Your task to perform on an android device: Open location settings Image 0: 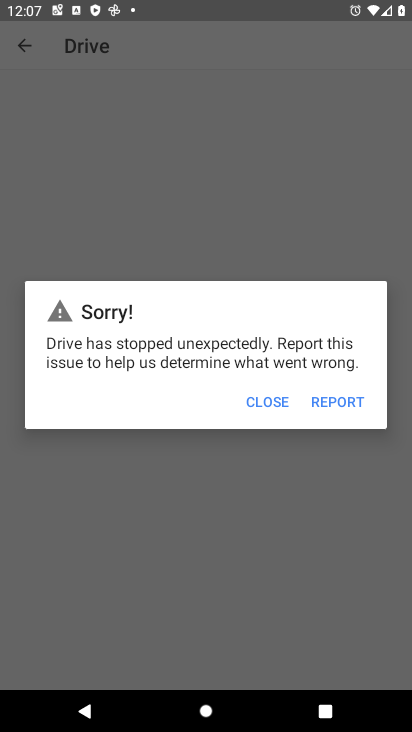
Step 0: press home button
Your task to perform on an android device: Open location settings Image 1: 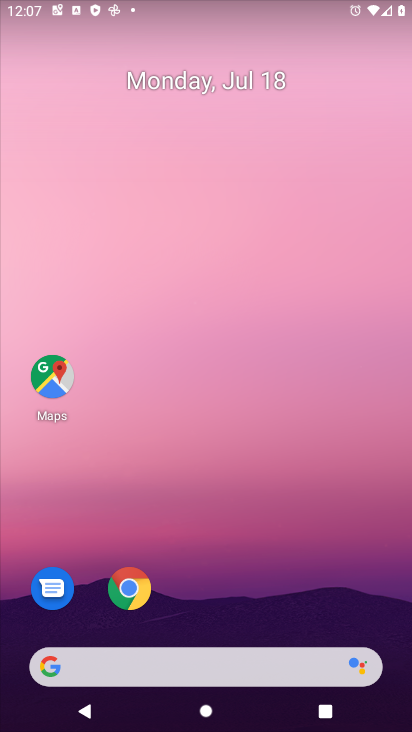
Step 1: drag from (212, 598) to (205, 363)
Your task to perform on an android device: Open location settings Image 2: 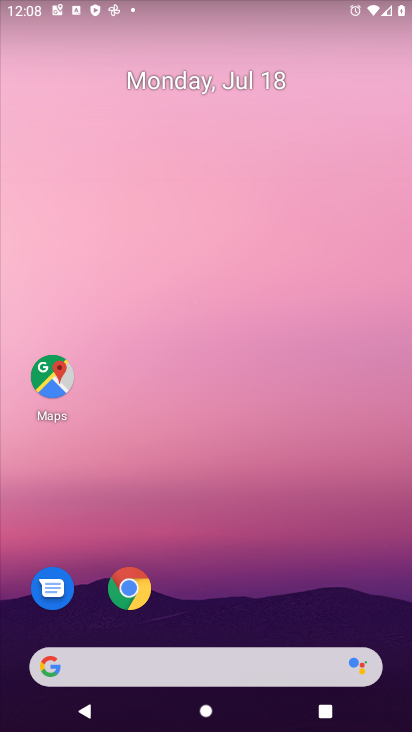
Step 2: drag from (174, 698) to (170, 260)
Your task to perform on an android device: Open location settings Image 3: 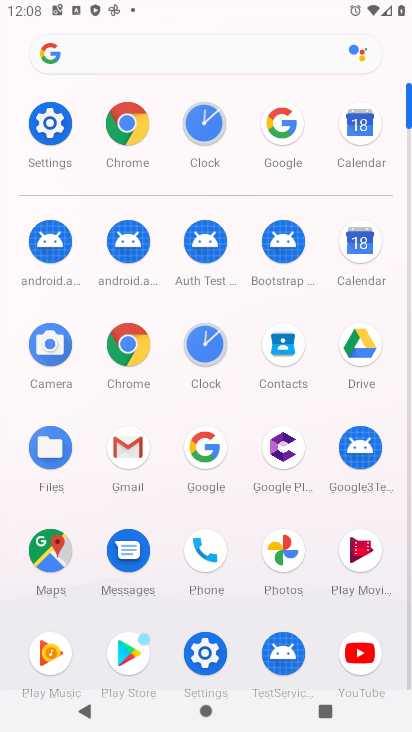
Step 3: drag from (236, 465) to (242, 362)
Your task to perform on an android device: Open location settings Image 4: 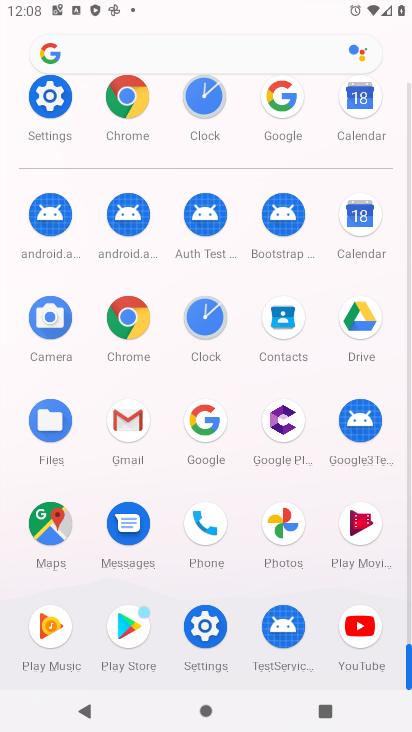
Step 4: click (55, 119)
Your task to perform on an android device: Open location settings Image 5: 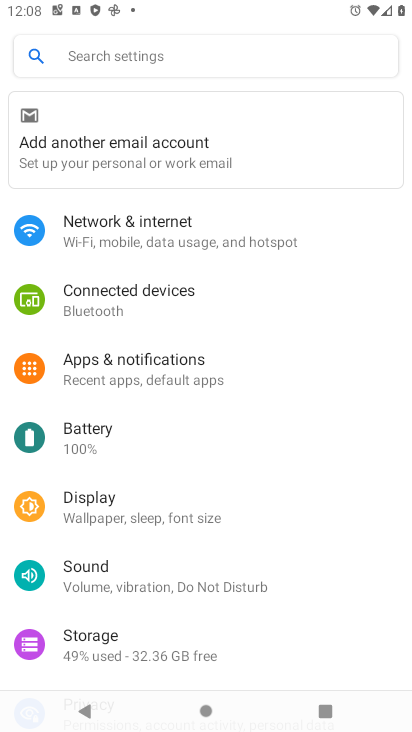
Step 5: drag from (177, 522) to (196, 224)
Your task to perform on an android device: Open location settings Image 6: 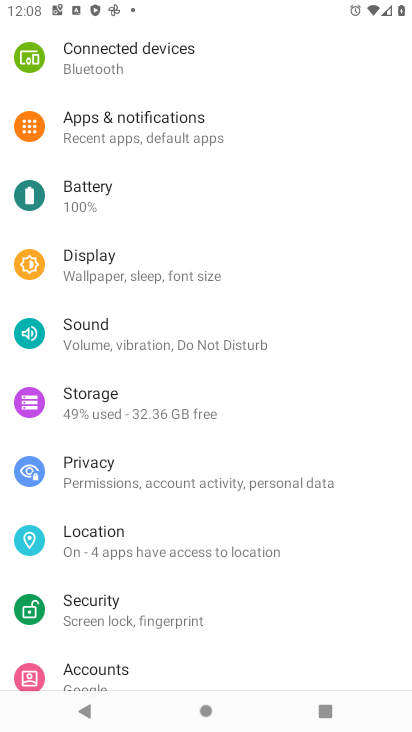
Step 6: click (160, 546)
Your task to perform on an android device: Open location settings Image 7: 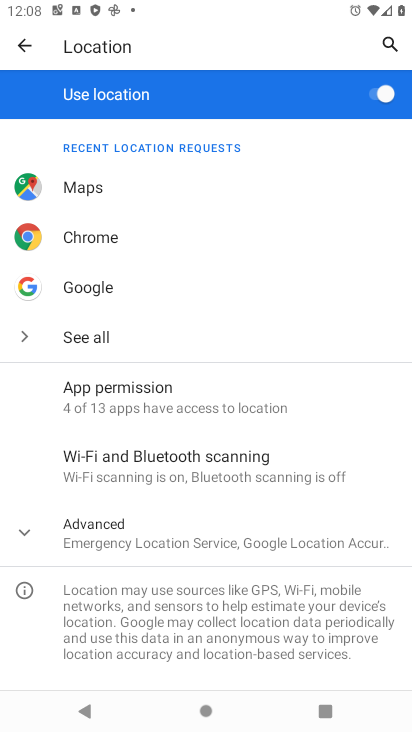
Step 7: task complete